Your task to perform on an android device: check battery use Image 0: 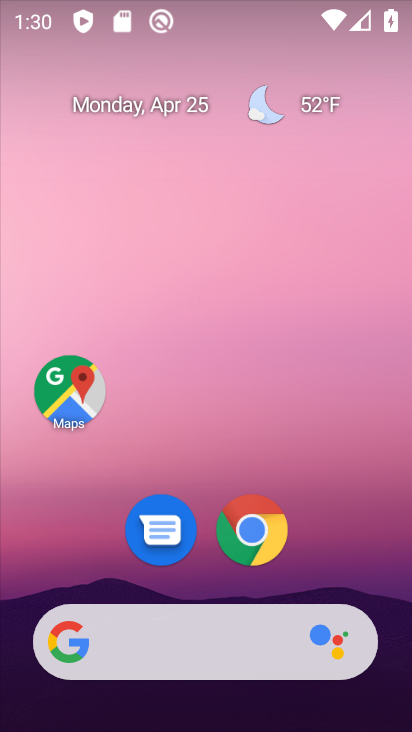
Step 0: drag from (349, 345) to (318, 127)
Your task to perform on an android device: check battery use Image 1: 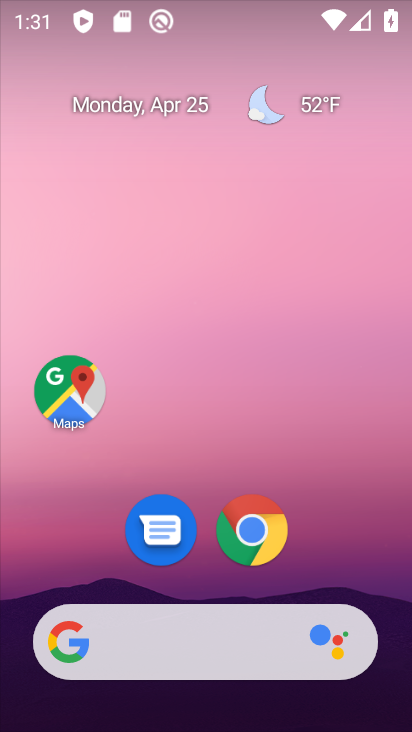
Step 1: click (379, 183)
Your task to perform on an android device: check battery use Image 2: 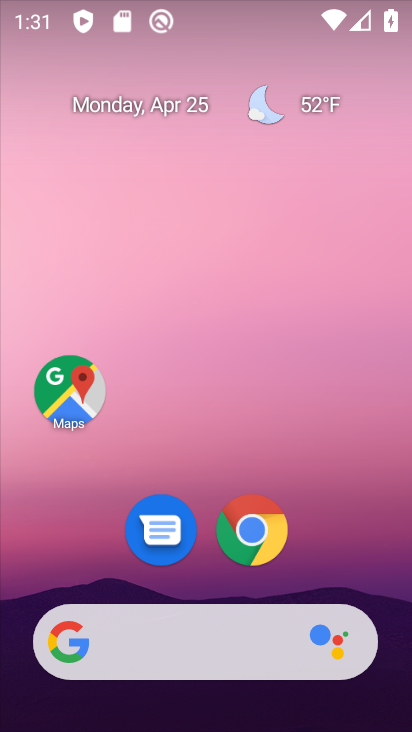
Step 2: drag from (338, 544) to (273, 157)
Your task to perform on an android device: check battery use Image 3: 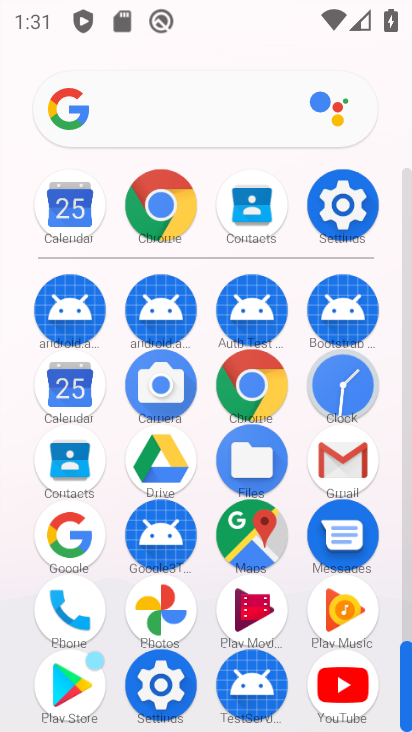
Step 3: click (341, 215)
Your task to perform on an android device: check battery use Image 4: 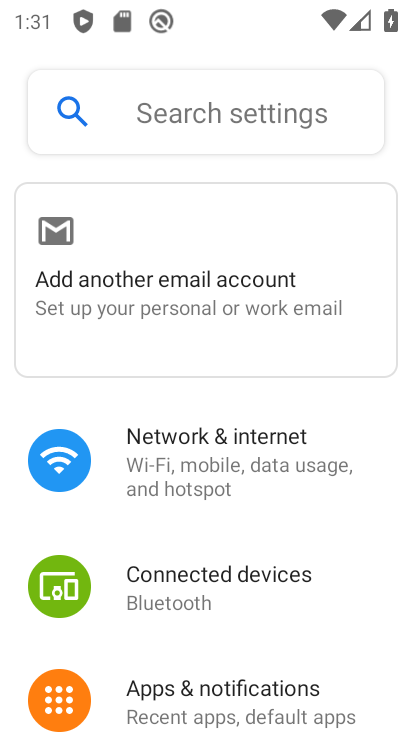
Step 4: drag from (266, 620) to (298, 301)
Your task to perform on an android device: check battery use Image 5: 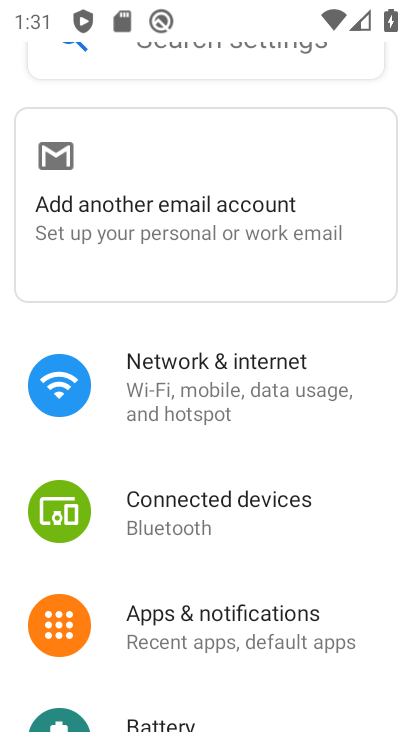
Step 5: drag from (316, 460) to (320, 365)
Your task to perform on an android device: check battery use Image 6: 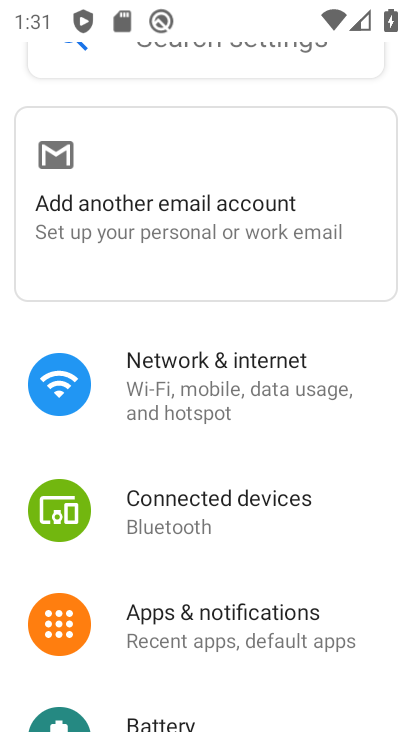
Step 6: drag from (261, 650) to (280, 408)
Your task to perform on an android device: check battery use Image 7: 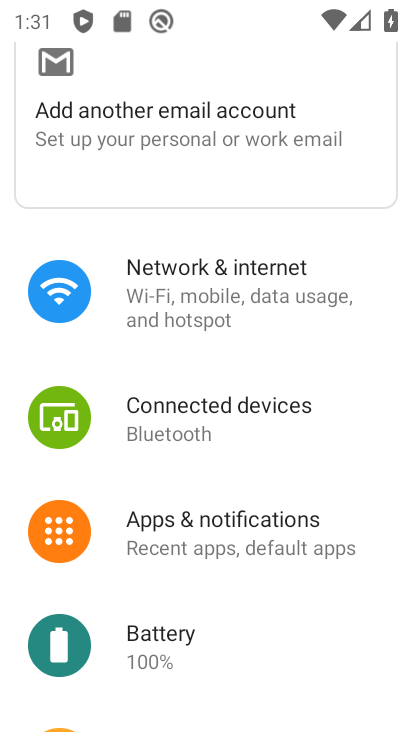
Step 7: click (180, 655)
Your task to perform on an android device: check battery use Image 8: 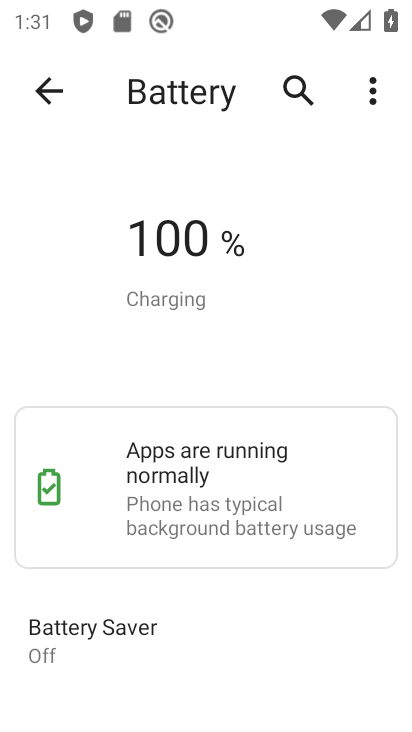
Step 8: click (378, 88)
Your task to perform on an android device: check battery use Image 9: 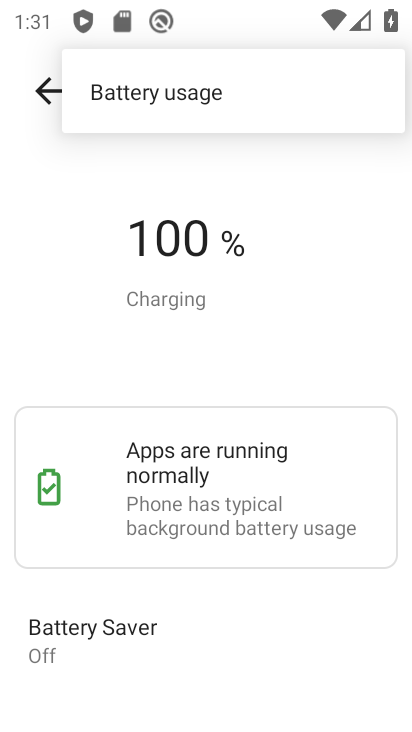
Step 9: click (160, 105)
Your task to perform on an android device: check battery use Image 10: 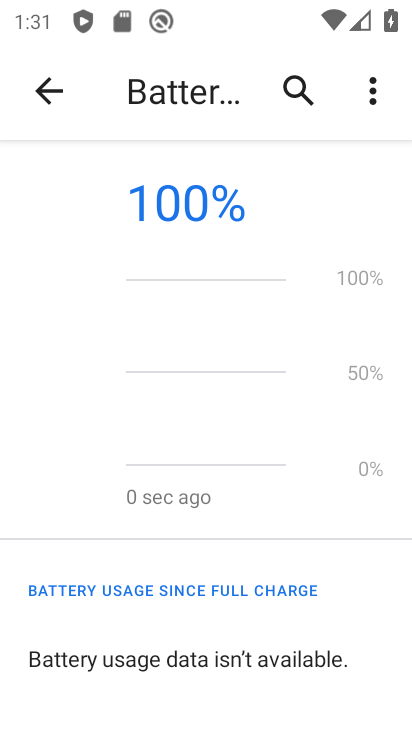
Step 10: task complete